Your task to perform on an android device: Go to Android settings Image 0: 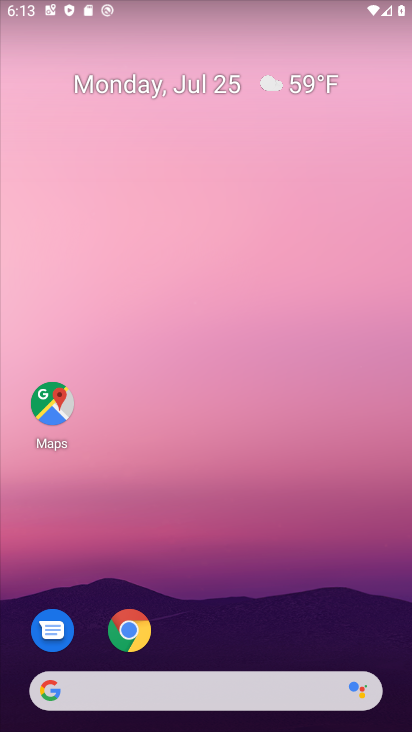
Step 0: drag from (196, 638) to (212, 147)
Your task to perform on an android device: Go to Android settings Image 1: 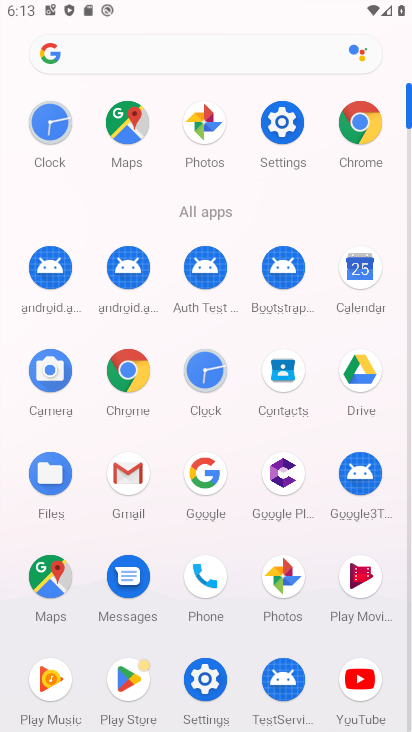
Step 1: click (283, 141)
Your task to perform on an android device: Go to Android settings Image 2: 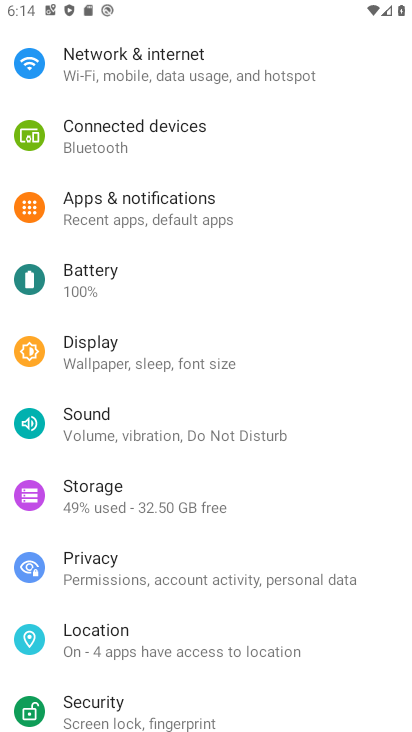
Step 2: drag from (175, 385) to (200, 231)
Your task to perform on an android device: Go to Android settings Image 3: 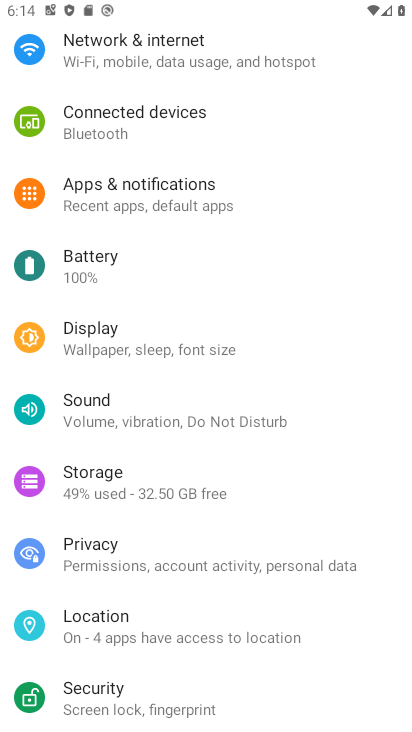
Step 3: drag from (201, 236) to (210, 593)
Your task to perform on an android device: Go to Android settings Image 4: 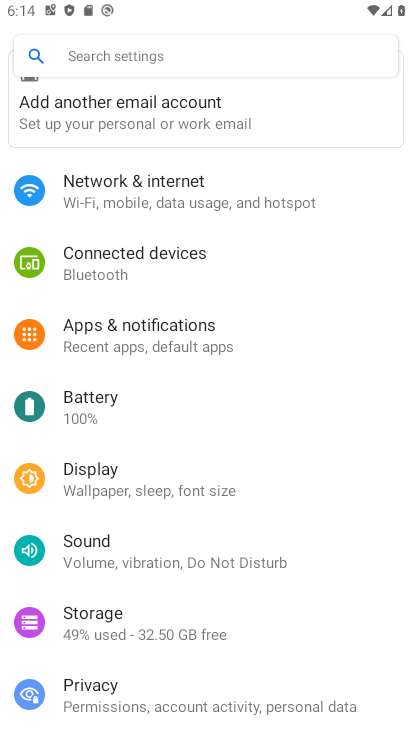
Step 4: click (138, 200)
Your task to perform on an android device: Go to Android settings Image 5: 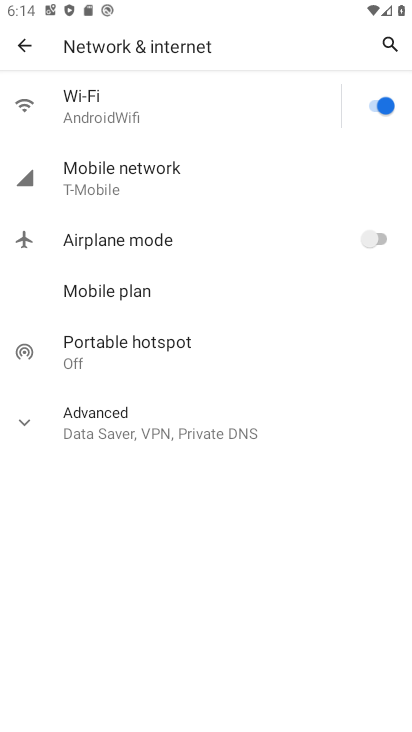
Step 5: press back button
Your task to perform on an android device: Go to Android settings Image 6: 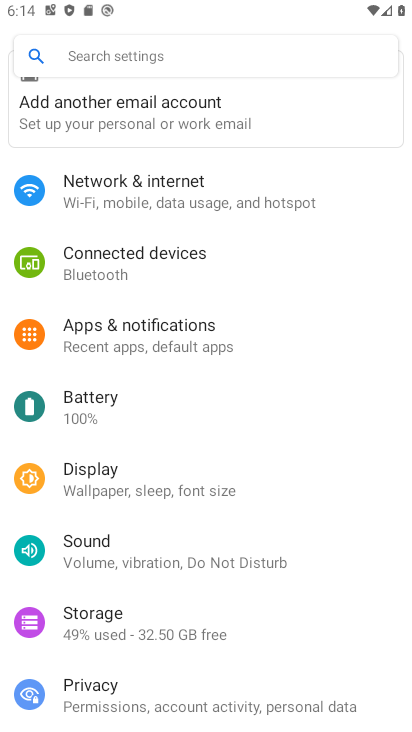
Step 6: drag from (227, 596) to (233, 313)
Your task to perform on an android device: Go to Android settings Image 7: 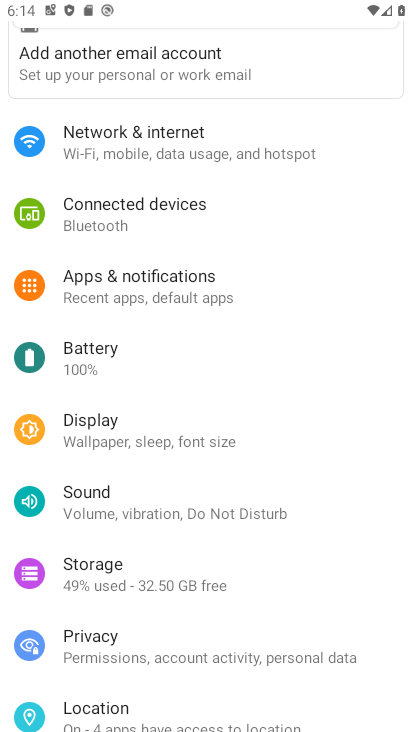
Step 7: drag from (216, 679) to (200, 433)
Your task to perform on an android device: Go to Android settings Image 8: 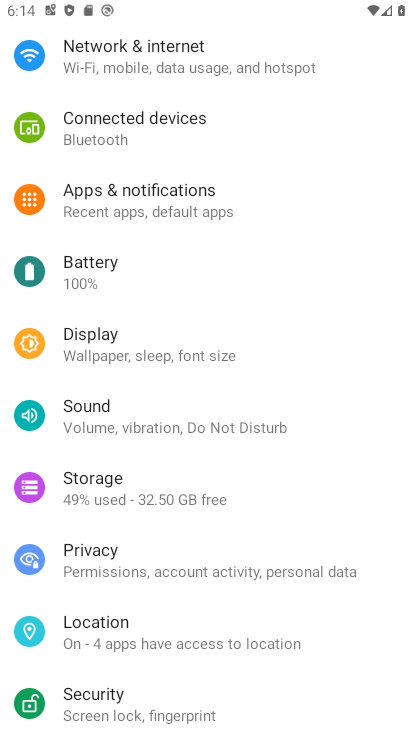
Step 8: drag from (155, 571) to (204, 240)
Your task to perform on an android device: Go to Android settings Image 9: 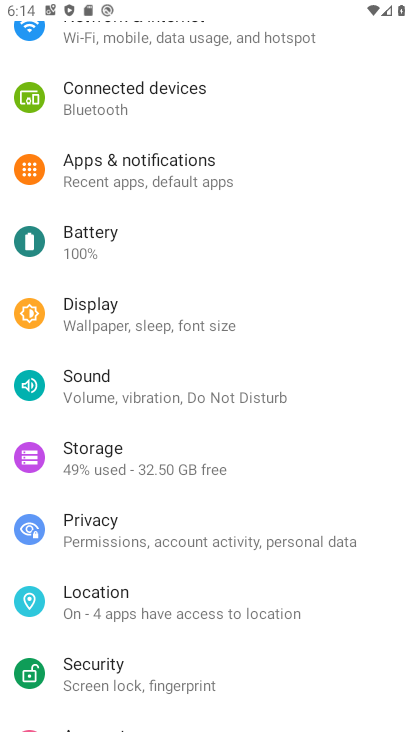
Step 9: click (237, 356)
Your task to perform on an android device: Go to Android settings Image 10: 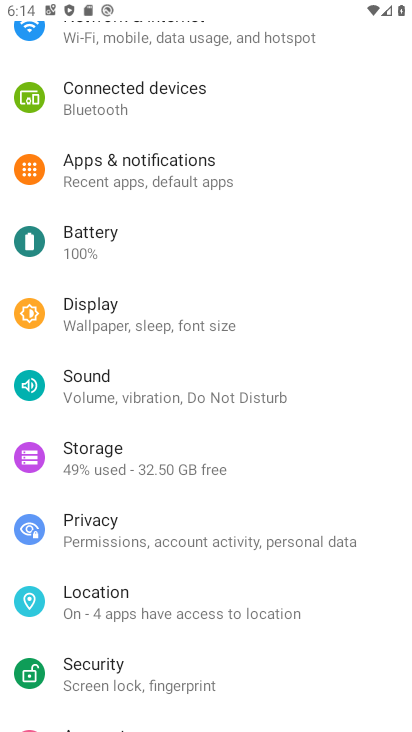
Step 10: drag from (187, 577) to (216, 324)
Your task to perform on an android device: Go to Android settings Image 11: 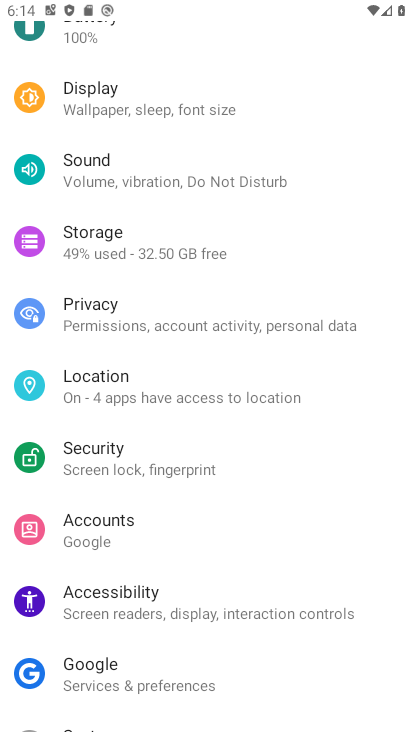
Step 11: drag from (173, 667) to (228, 460)
Your task to perform on an android device: Go to Android settings Image 12: 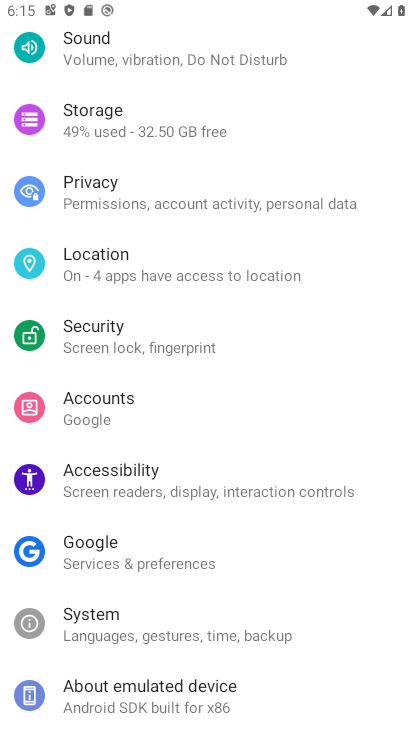
Step 12: click (142, 686)
Your task to perform on an android device: Go to Android settings Image 13: 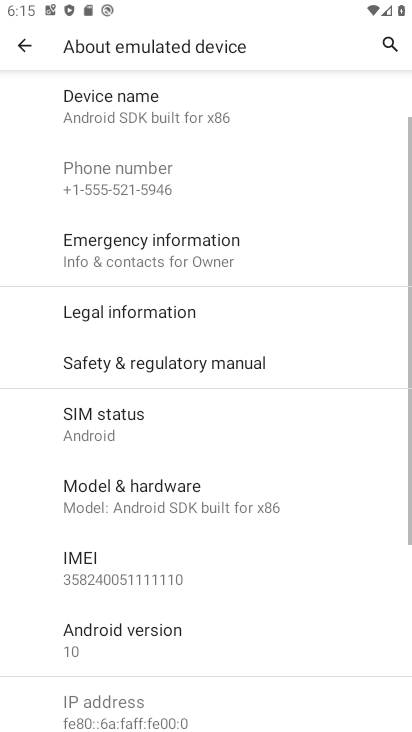
Step 13: click (115, 639)
Your task to perform on an android device: Go to Android settings Image 14: 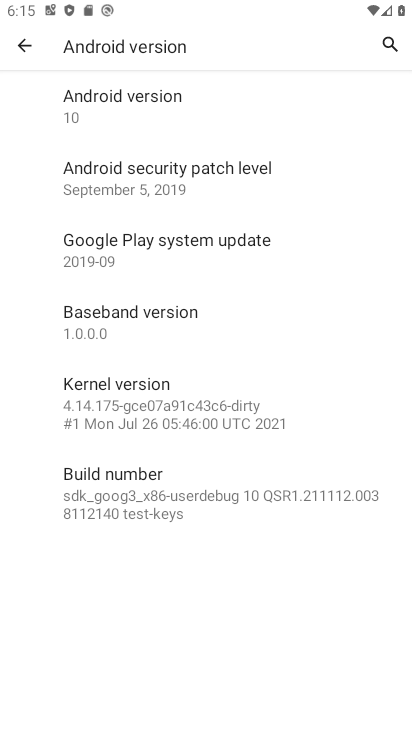
Step 14: task complete